Your task to perform on an android device: open the mobile data screen to see how much data has been used Image 0: 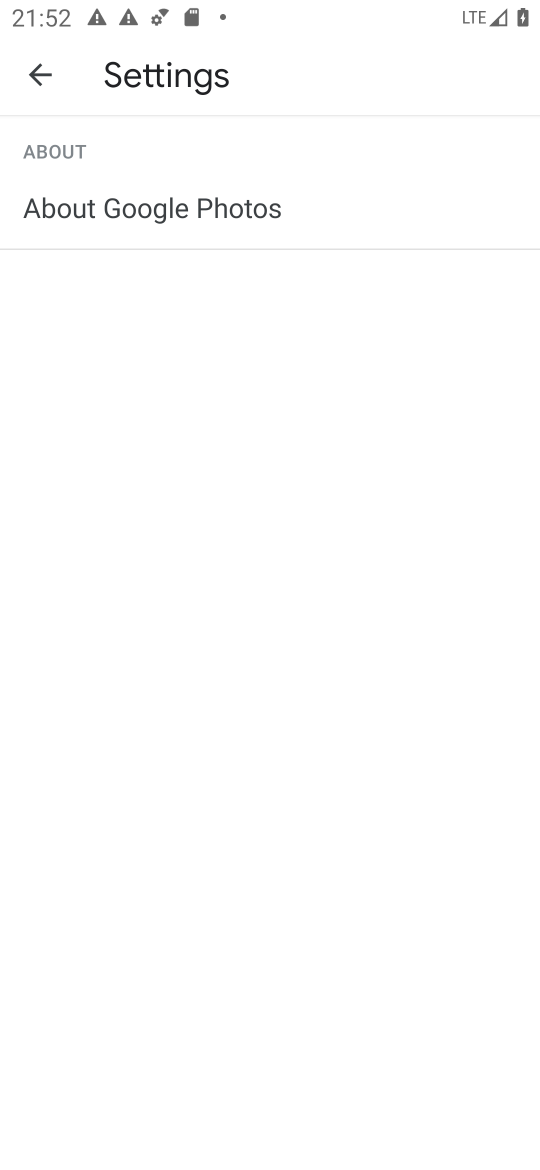
Step 0: press home button
Your task to perform on an android device: open the mobile data screen to see how much data has been used Image 1: 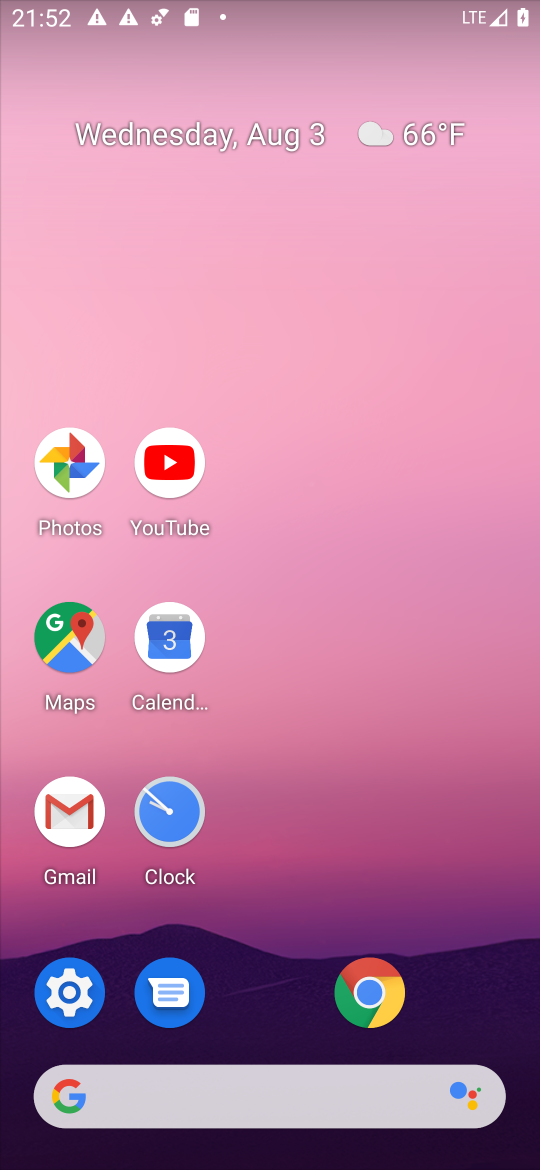
Step 1: click (63, 989)
Your task to perform on an android device: open the mobile data screen to see how much data has been used Image 2: 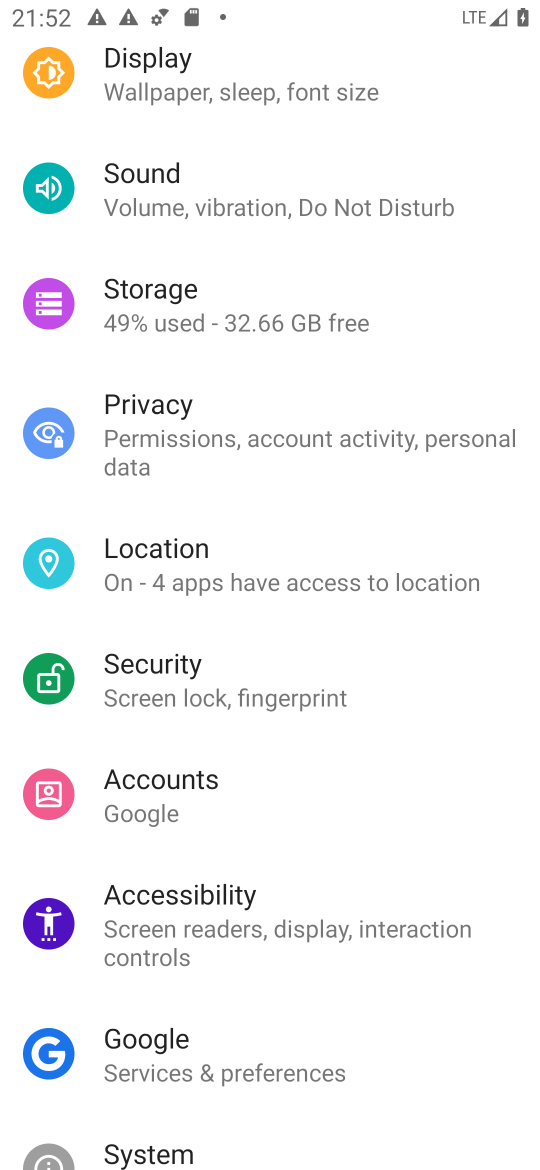
Step 2: drag from (323, 174) to (342, 719)
Your task to perform on an android device: open the mobile data screen to see how much data has been used Image 3: 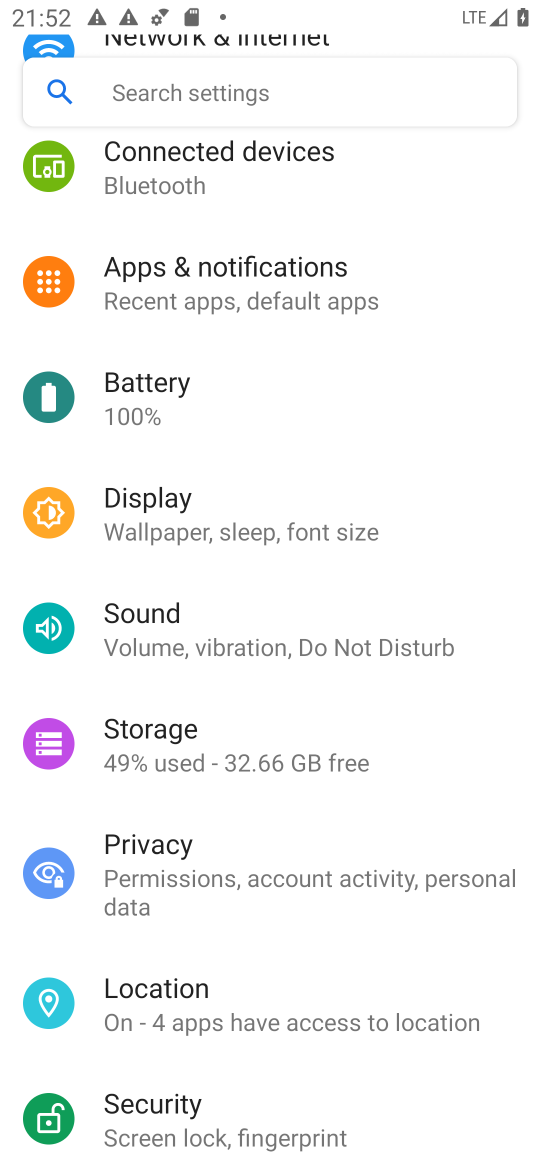
Step 3: drag from (312, 369) to (341, 871)
Your task to perform on an android device: open the mobile data screen to see how much data has been used Image 4: 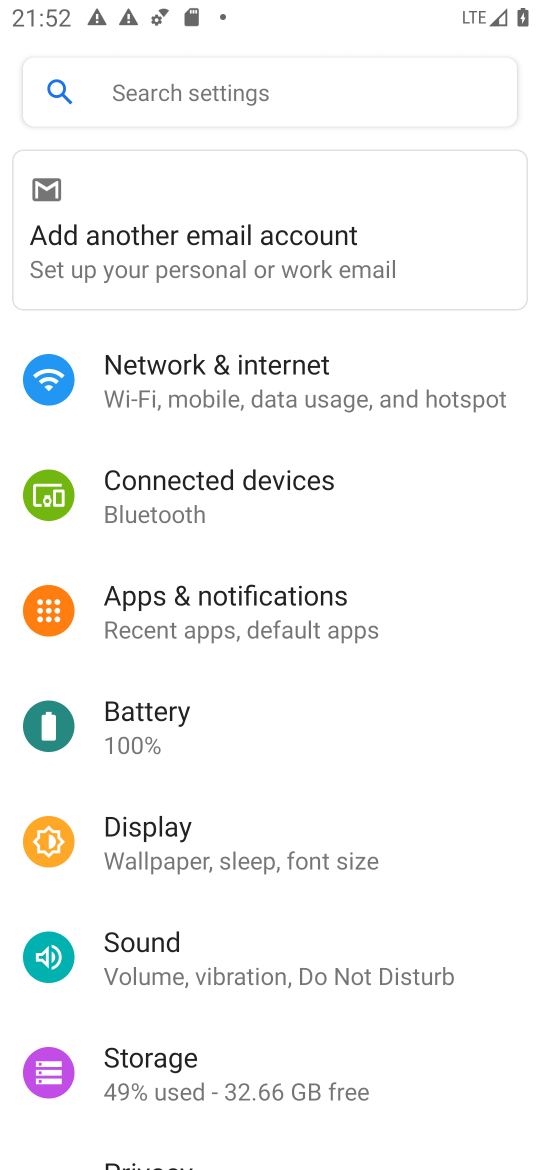
Step 4: click (251, 370)
Your task to perform on an android device: open the mobile data screen to see how much data has been used Image 5: 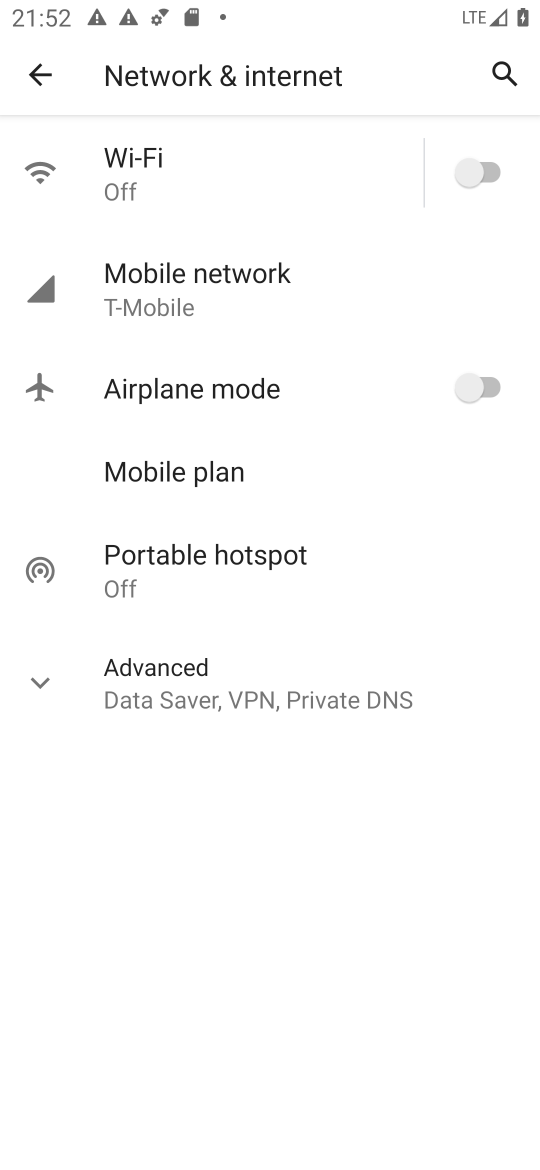
Step 5: click (196, 275)
Your task to perform on an android device: open the mobile data screen to see how much data has been used Image 6: 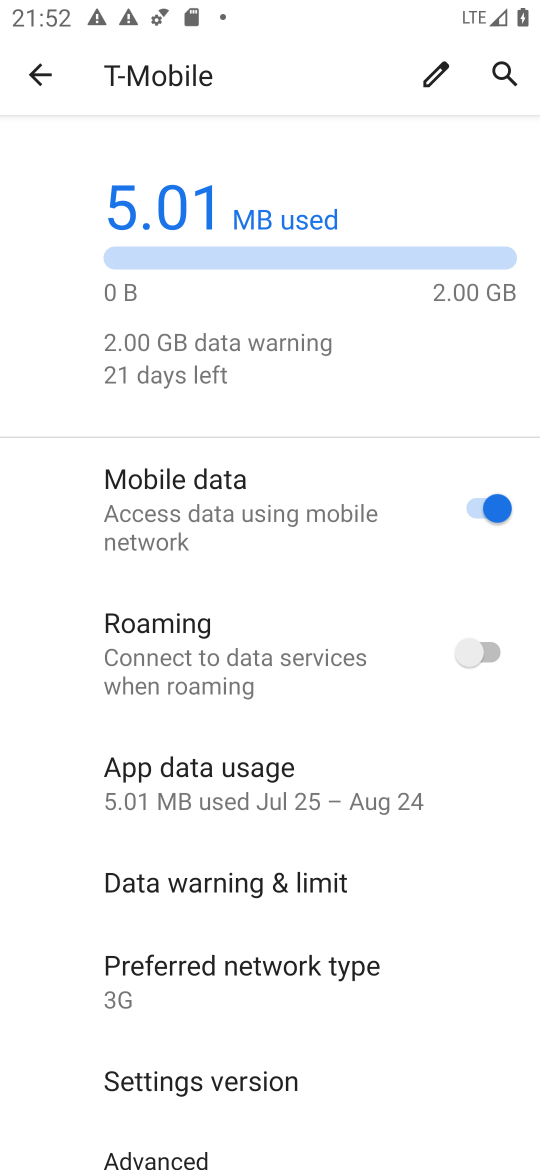
Step 6: task complete